Your task to perform on an android device: turn on translation in the chrome app Image 0: 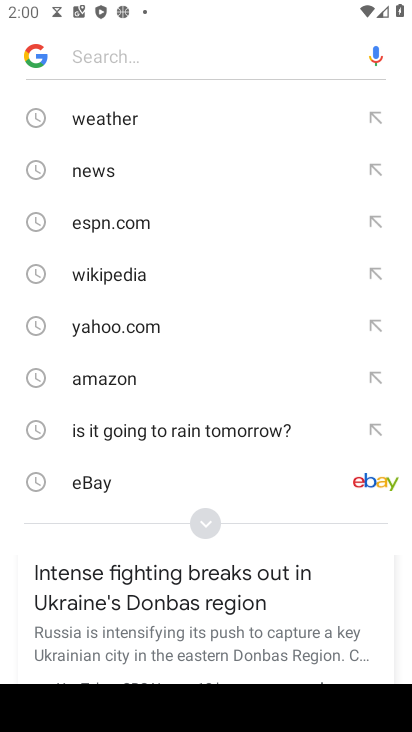
Step 0: press home button
Your task to perform on an android device: turn on translation in the chrome app Image 1: 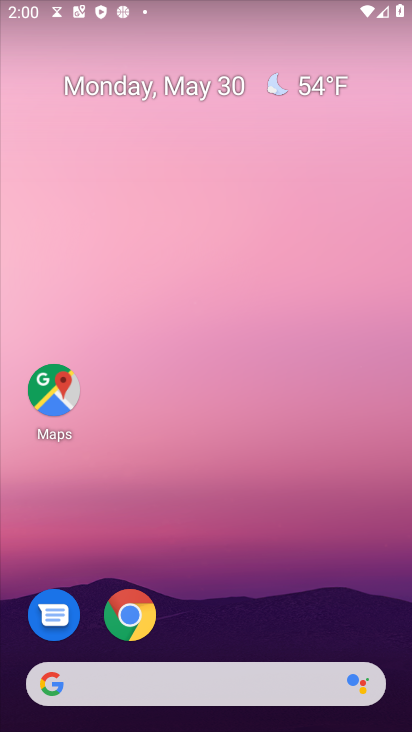
Step 1: drag from (232, 630) to (228, 16)
Your task to perform on an android device: turn on translation in the chrome app Image 2: 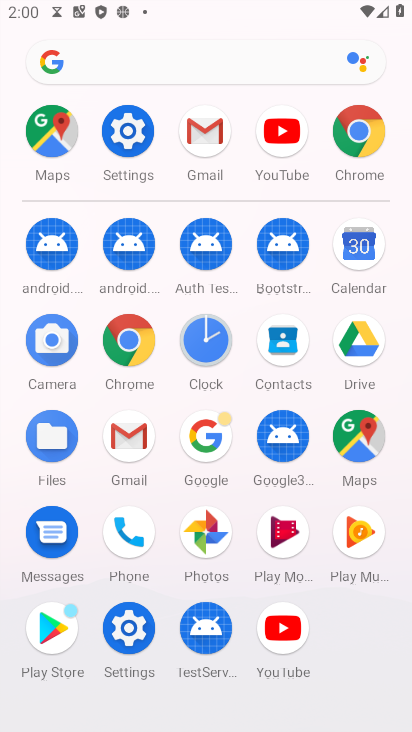
Step 2: click (357, 146)
Your task to perform on an android device: turn on translation in the chrome app Image 3: 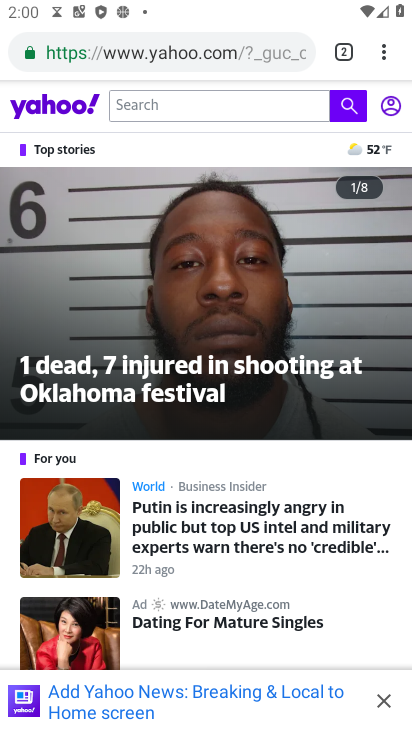
Step 3: drag from (382, 56) to (203, 626)
Your task to perform on an android device: turn on translation in the chrome app Image 4: 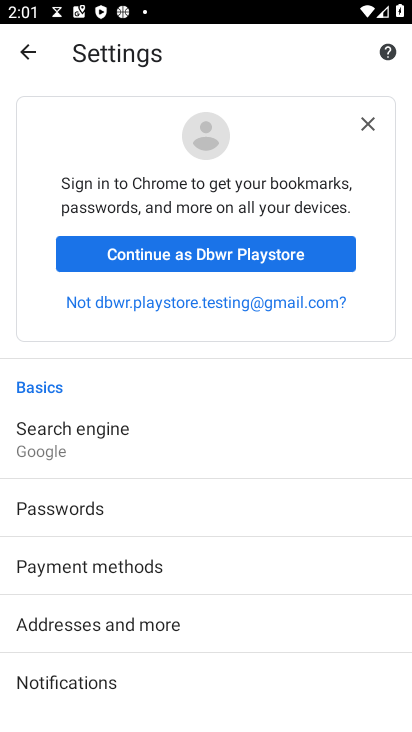
Step 4: drag from (107, 677) to (106, 314)
Your task to perform on an android device: turn on translation in the chrome app Image 5: 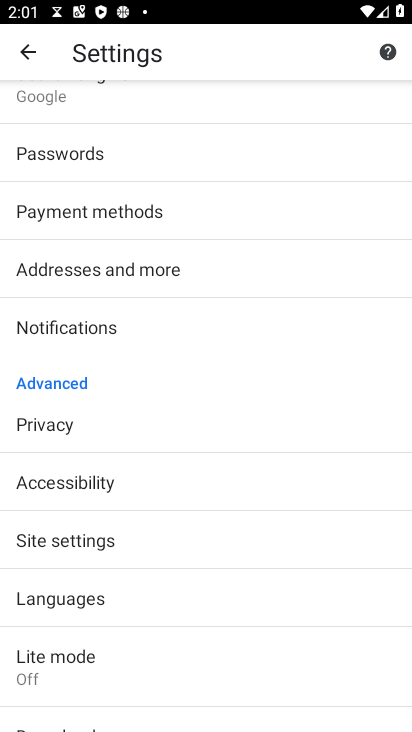
Step 5: drag from (121, 626) to (198, 377)
Your task to perform on an android device: turn on translation in the chrome app Image 6: 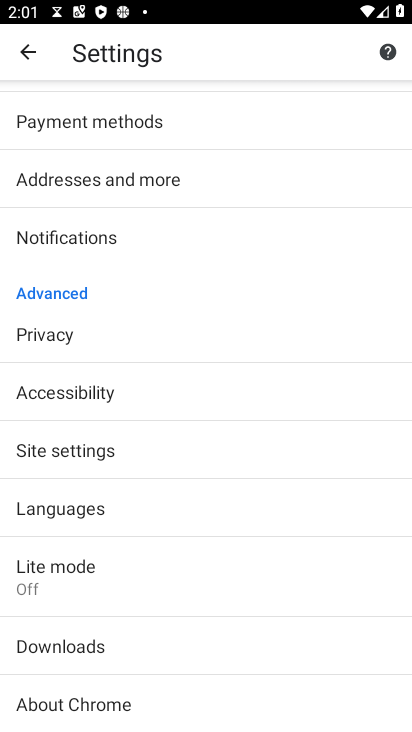
Step 6: click (57, 513)
Your task to perform on an android device: turn on translation in the chrome app Image 7: 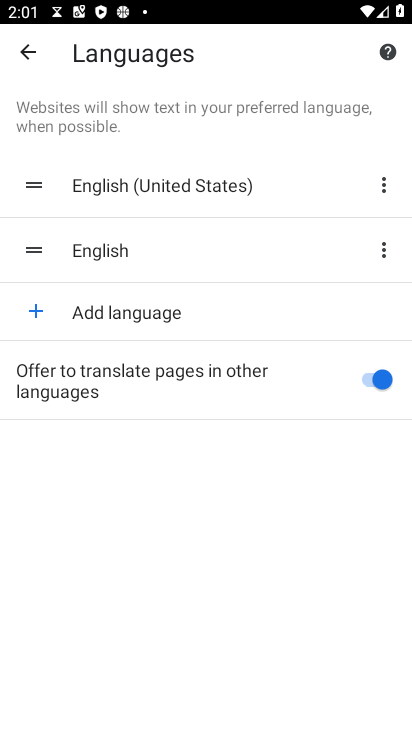
Step 7: task complete